Your task to perform on an android device: Do I have any events this weekend? Image 0: 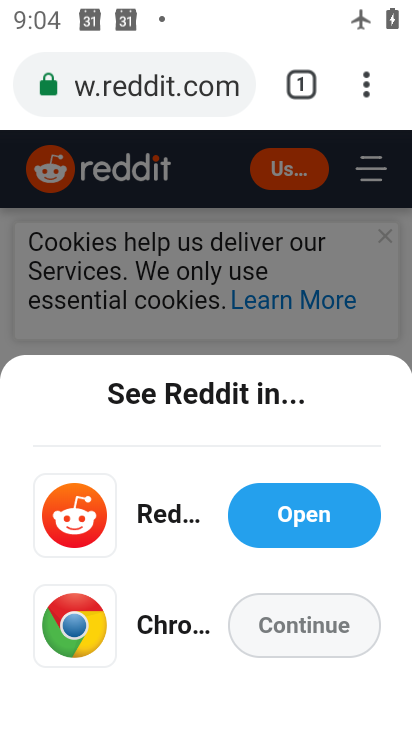
Step 0: press home button
Your task to perform on an android device: Do I have any events this weekend? Image 1: 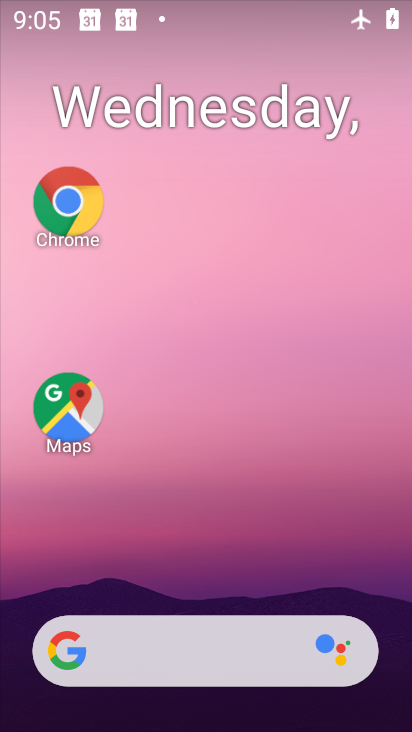
Step 1: drag from (193, 587) to (124, 20)
Your task to perform on an android device: Do I have any events this weekend? Image 2: 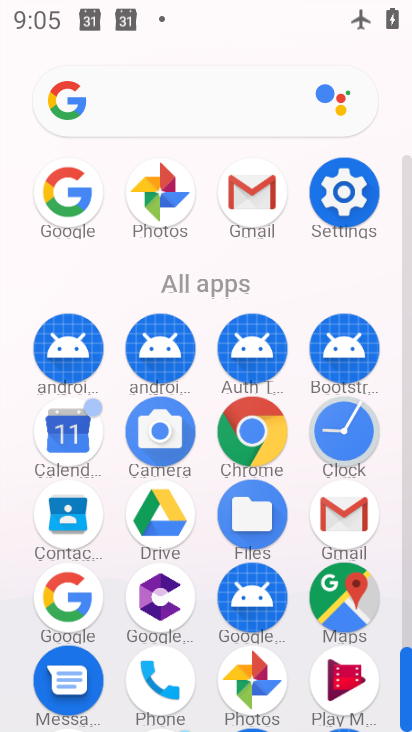
Step 2: click (57, 431)
Your task to perform on an android device: Do I have any events this weekend? Image 3: 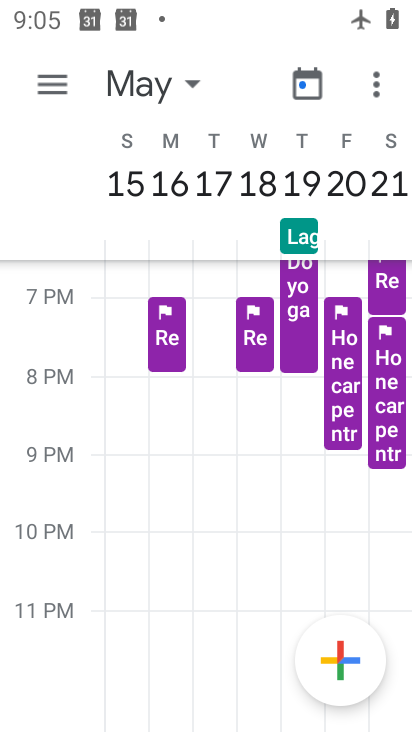
Step 3: task complete